Your task to perform on an android device: Add "energizer triple a" to the cart on bestbuy.com, then select checkout. Image 0: 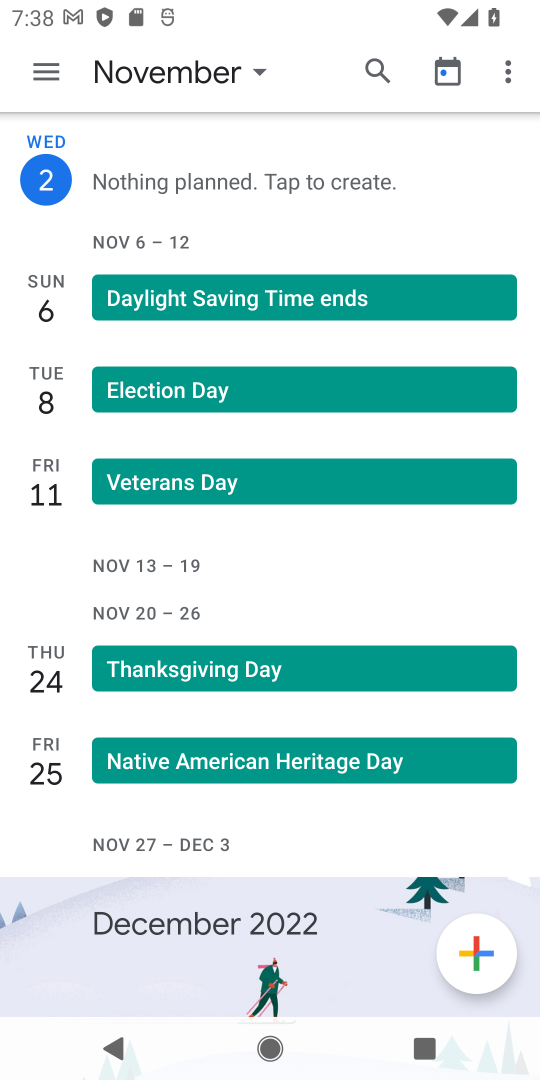
Step 0: press home button
Your task to perform on an android device: Add "energizer triple a" to the cart on bestbuy.com, then select checkout. Image 1: 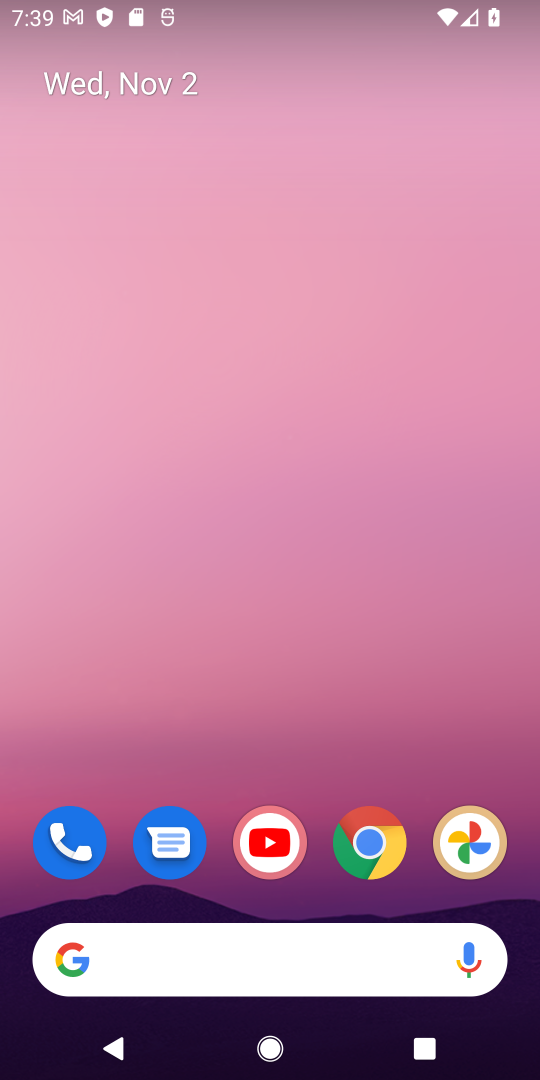
Step 1: drag from (194, 832) to (211, 587)
Your task to perform on an android device: Add "energizer triple a" to the cart on bestbuy.com, then select checkout. Image 2: 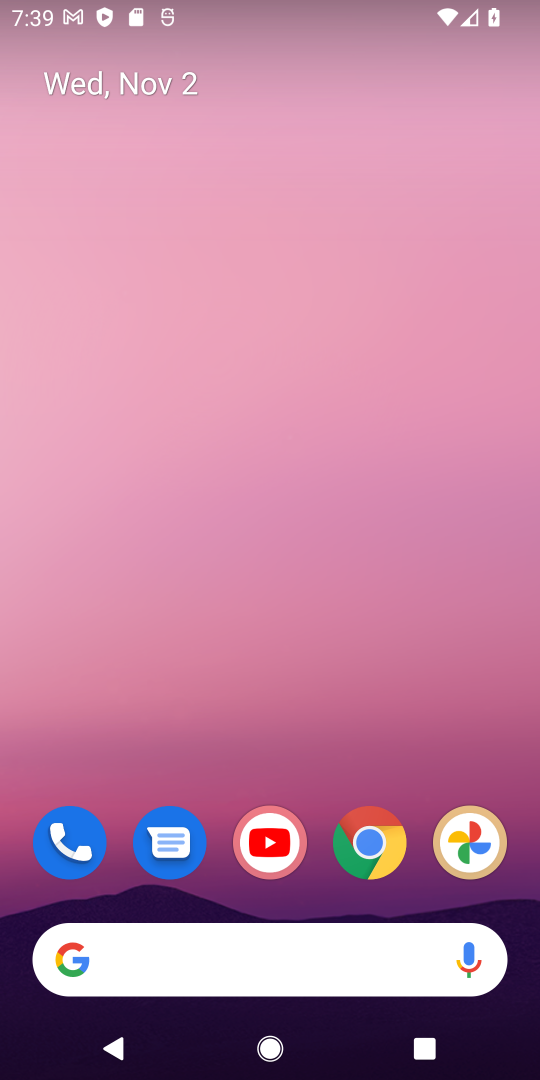
Step 2: drag from (266, 892) to (256, 280)
Your task to perform on an android device: Add "energizer triple a" to the cart on bestbuy.com, then select checkout. Image 3: 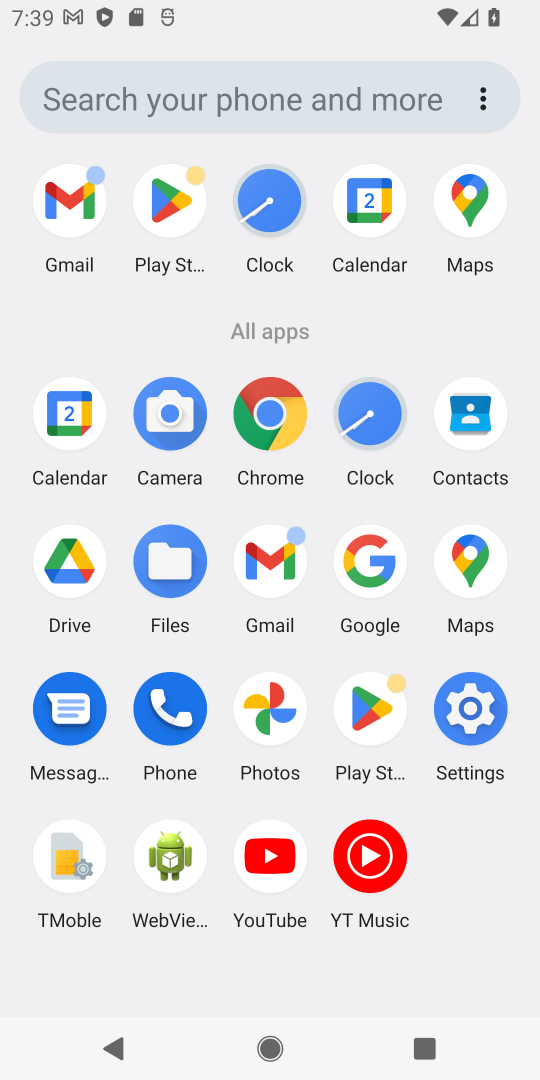
Step 3: click (364, 574)
Your task to perform on an android device: Add "energizer triple a" to the cart on bestbuy.com, then select checkout. Image 4: 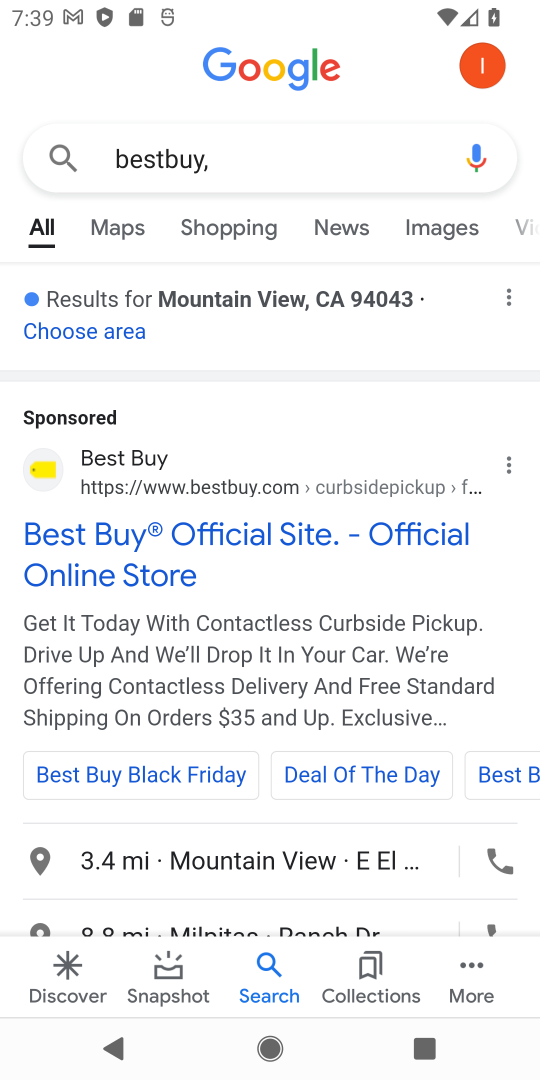
Step 4: click (44, 462)
Your task to perform on an android device: Add "energizer triple a" to the cart on bestbuy.com, then select checkout. Image 5: 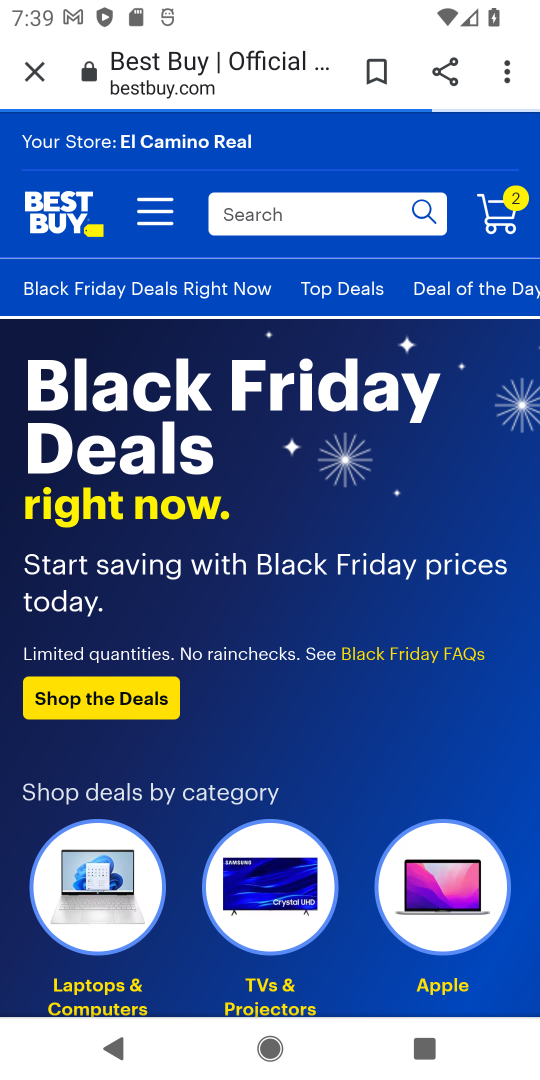
Step 5: click (247, 211)
Your task to perform on an android device: Add "energizer triple a" to the cart on bestbuy.com, then select checkout. Image 6: 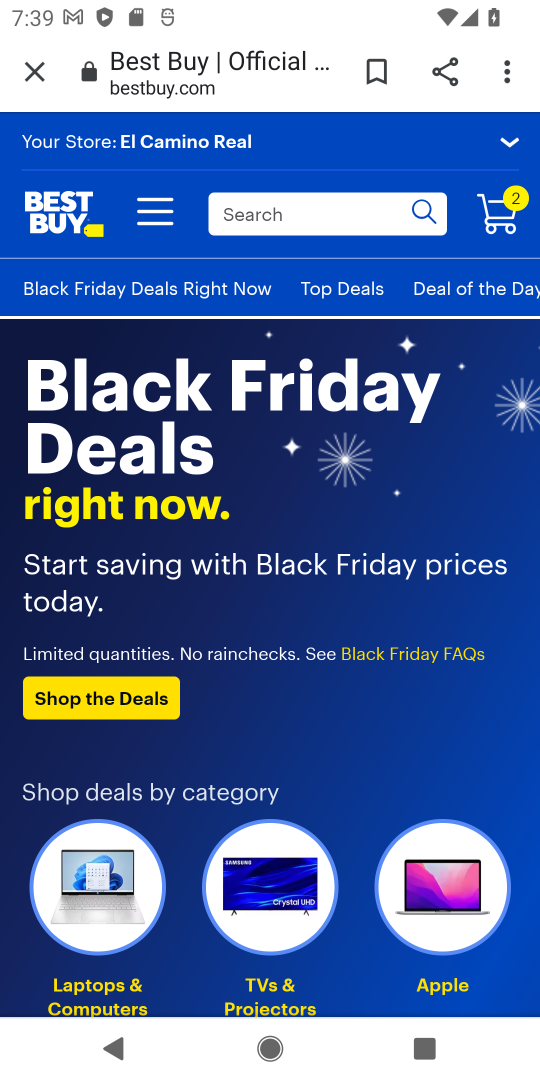
Step 6: click (277, 206)
Your task to perform on an android device: Add "energizer triple a" to the cart on bestbuy.com, then select checkout. Image 7: 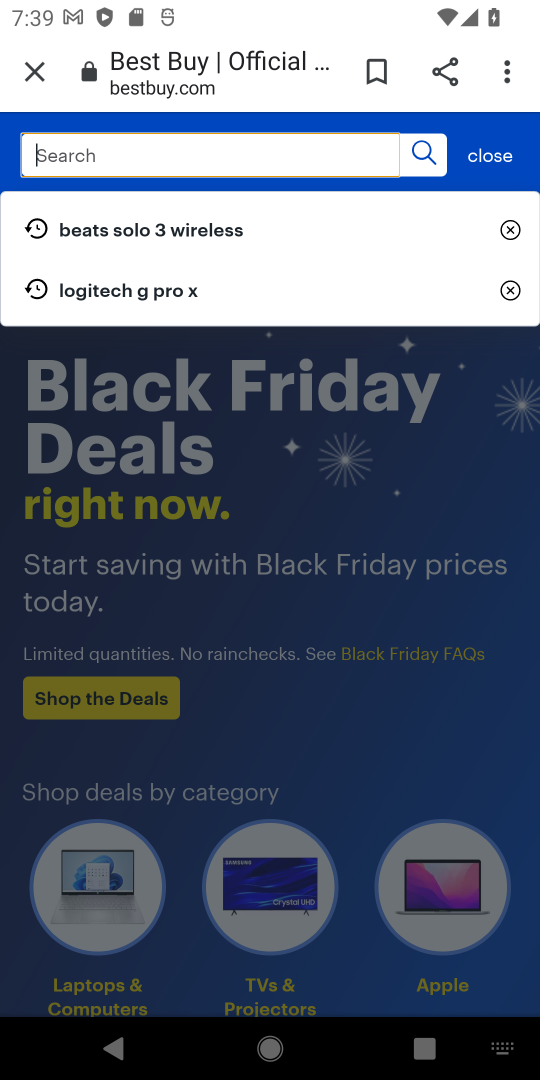
Step 7: type "energizer triple a "
Your task to perform on an android device: Add "energizer triple a" to the cart on bestbuy.com, then select checkout. Image 8: 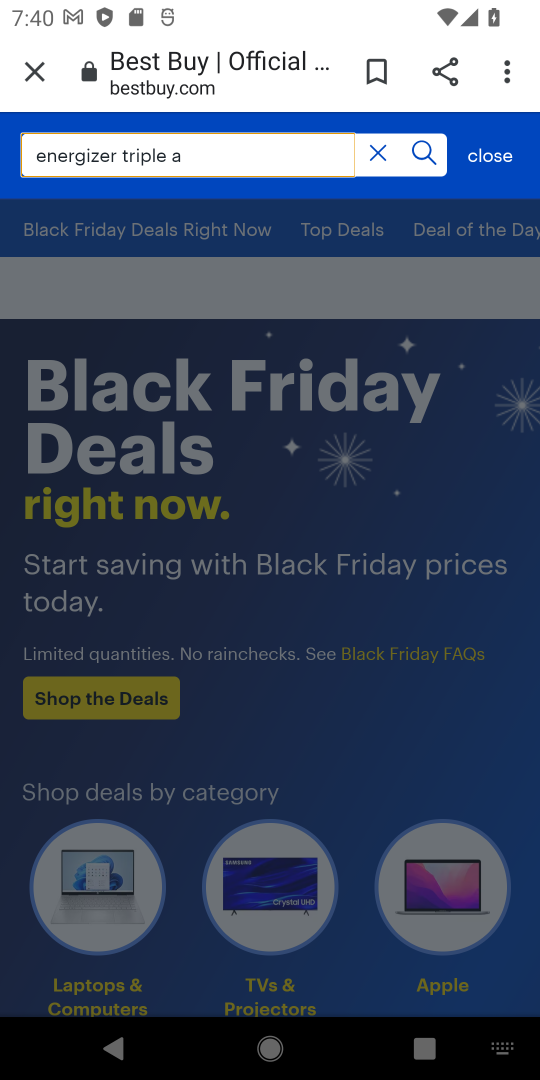
Step 8: click (418, 149)
Your task to perform on an android device: Add "energizer triple a" to the cart on bestbuy.com, then select checkout. Image 9: 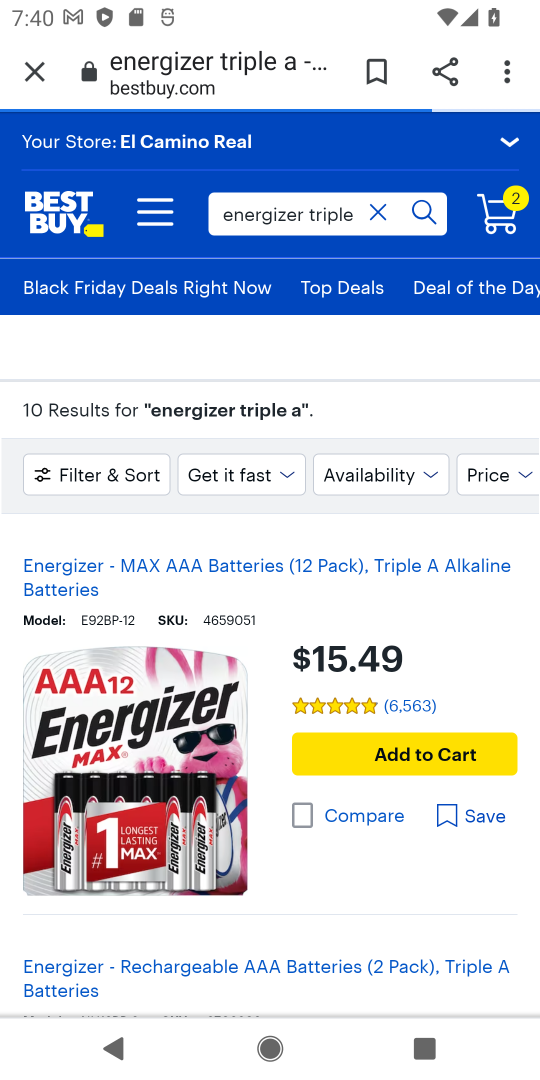
Step 9: drag from (136, 837) to (147, 489)
Your task to perform on an android device: Add "energizer triple a" to the cart on bestbuy.com, then select checkout. Image 10: 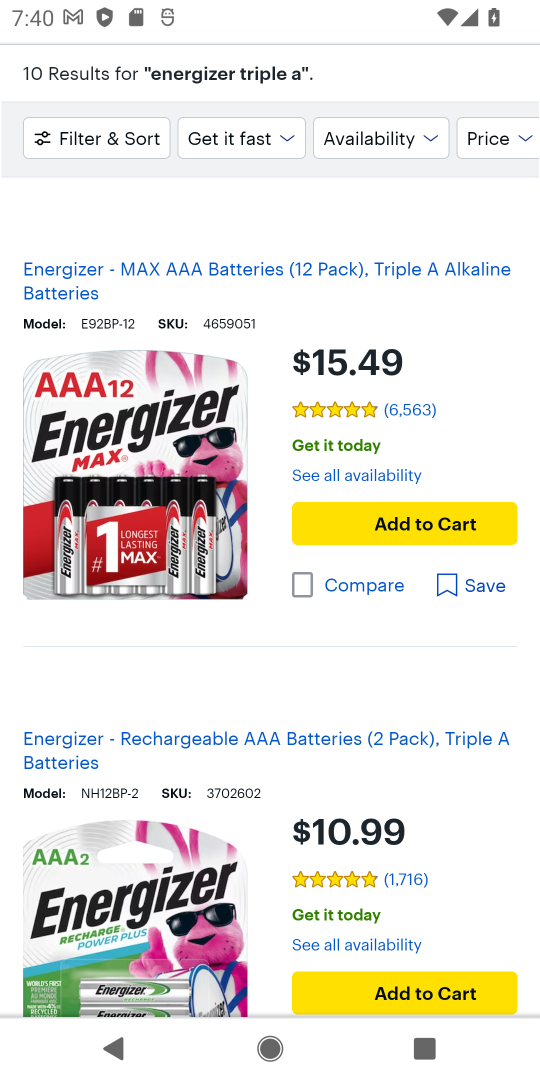
Step 10: click (332, 521)
Your task to perform on an android device: Add "energizer triple a" to the cart on bestbuy.com, then select checkout. Image 11: 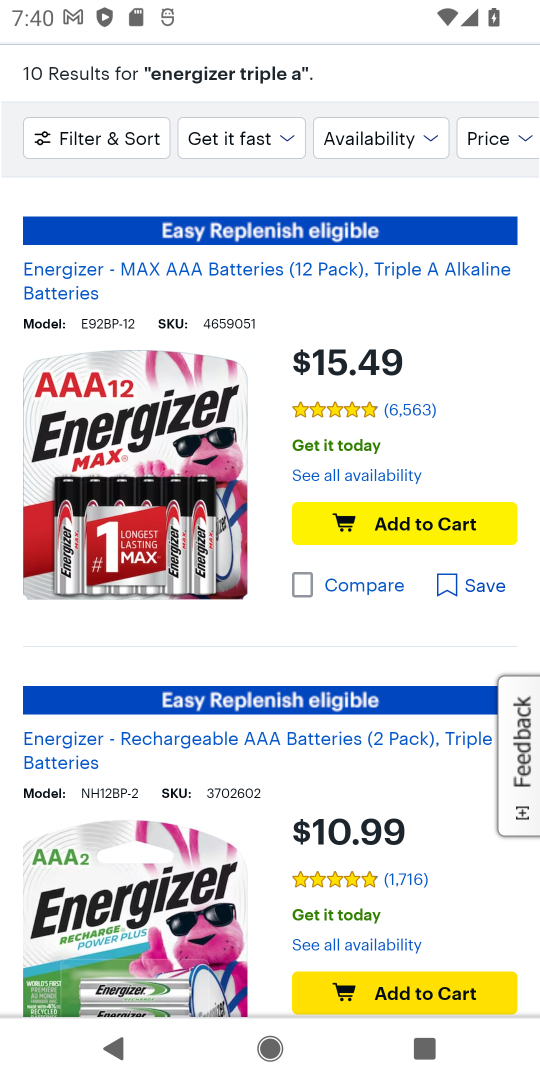
Step 11: click (379, 512)
Your task to perform on an android device: Add "energizer triple a" to the cart on bestbuy.com, then select checkout. Image 12: 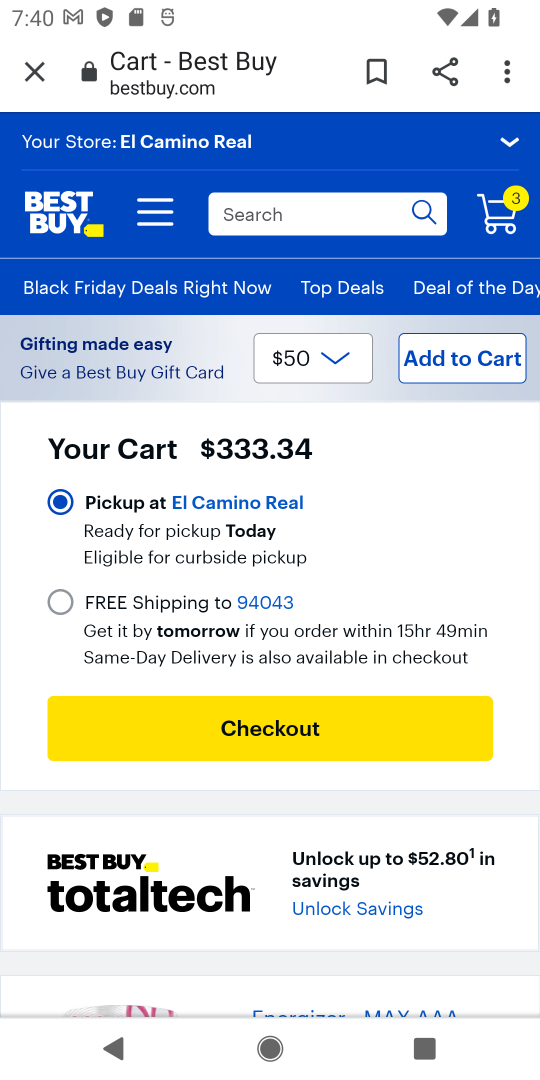
Step 12: task complete